Your task to perform on an android device: turn on airplane mode Image 0: 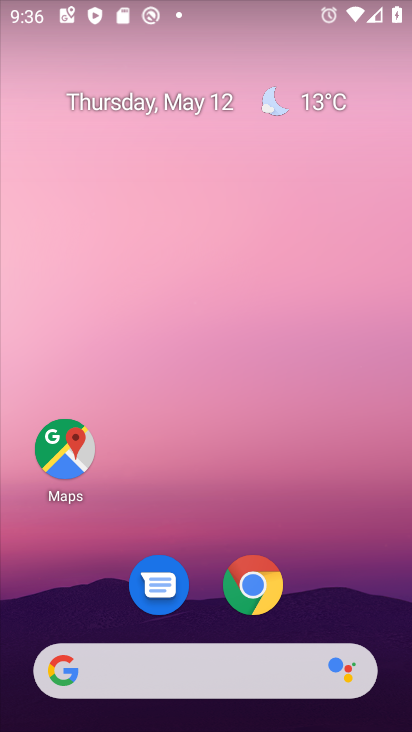
Step 0: drag from (213, 504) to (304, 36)
Your task to perform on an android device: turn on airplane mode Image 1: 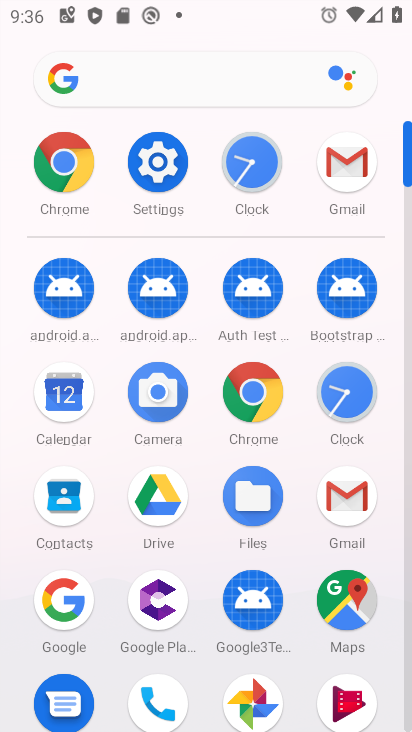
Step 1: click (171, 171)
Your task to perform on an android device: turn on airplane mode Image 2: 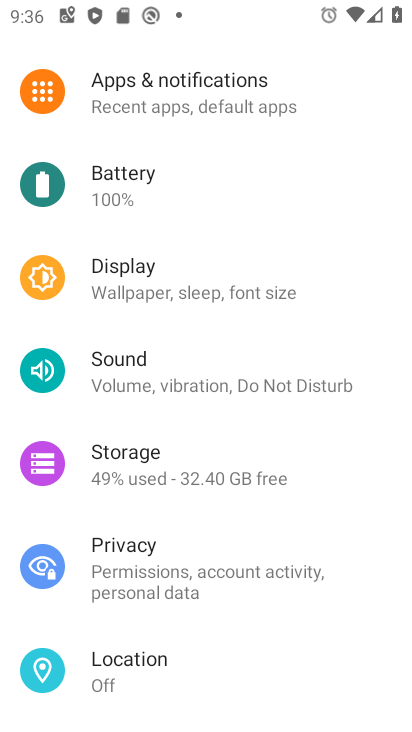
Step 2: drag from (190, 193) to (240, 581)
Your task to perform on an android device: turn on airplane mode Image 3: 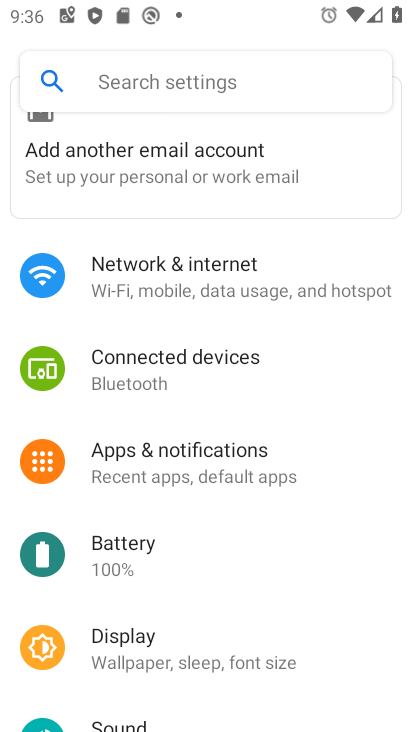
Step 3: click (236, 289)
Your task to perform on an android device: turn on airplane mode Image 4: 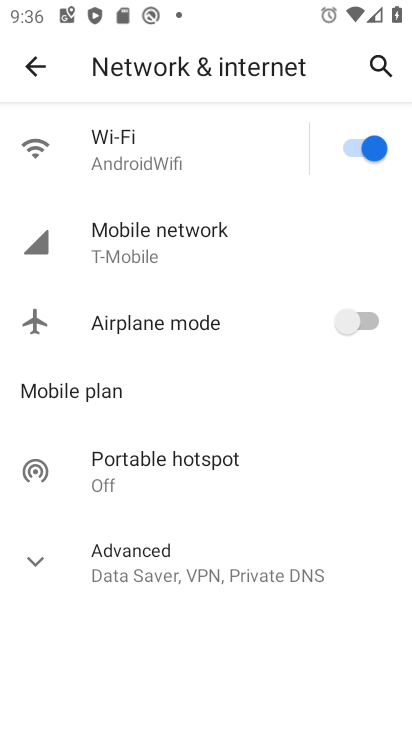
Step 4: click (364, 320)
Your task to perform on an android device: turn on airplane mode Image 5: 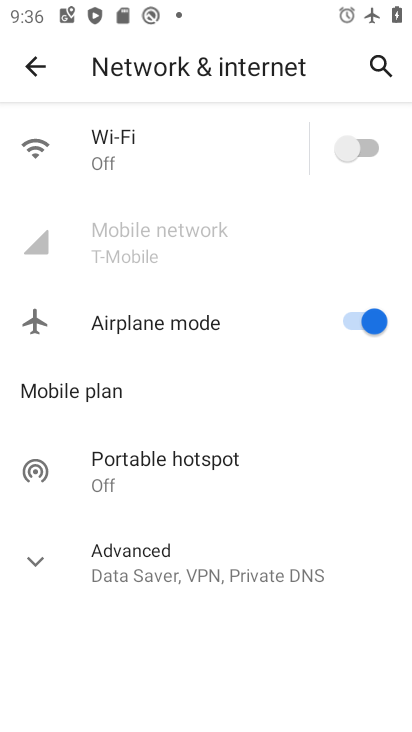
Step 5: task complete